Your task to perform on an android device: Find coffee shops on Maps Image 0: 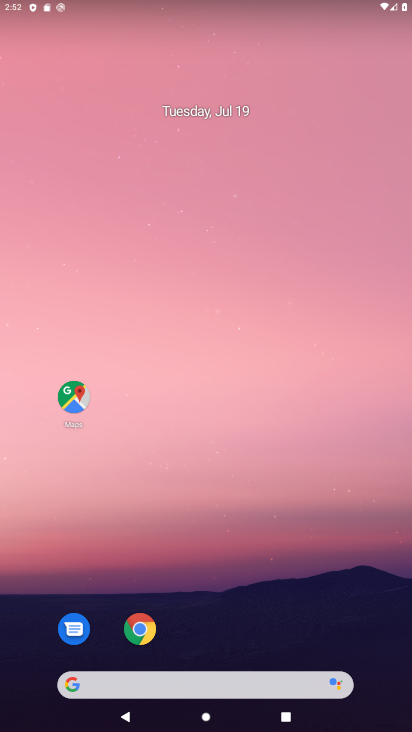
Step 0: click (80, 406)
Your task to perform on an android device: Find coffee shops on Maps Image 1: 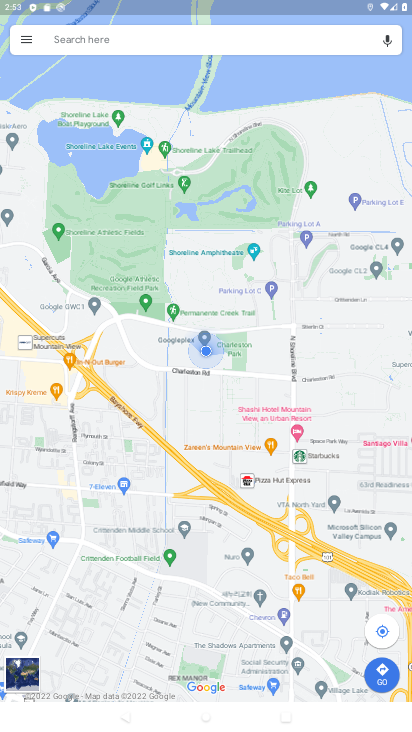
Step 1: click (122, 40)
Your task to perform on an android device: Find coffee shops on Maps Image 2: 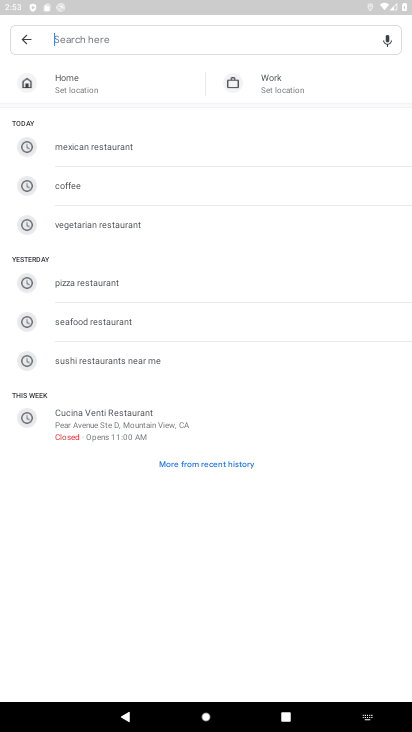
Step 2: type "coffee shops"
Your task to perform on an android device: Find coffee shops on Maps Image 3: 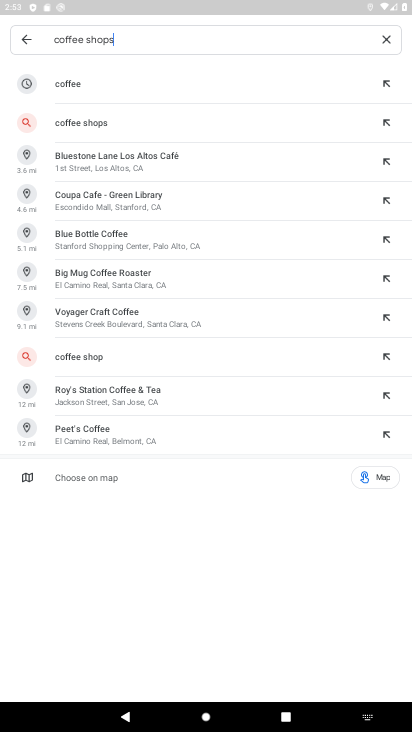
Step 3: click (101, 120)
Your task to perform on an android device: Find coffee shops on Maps Image 4: 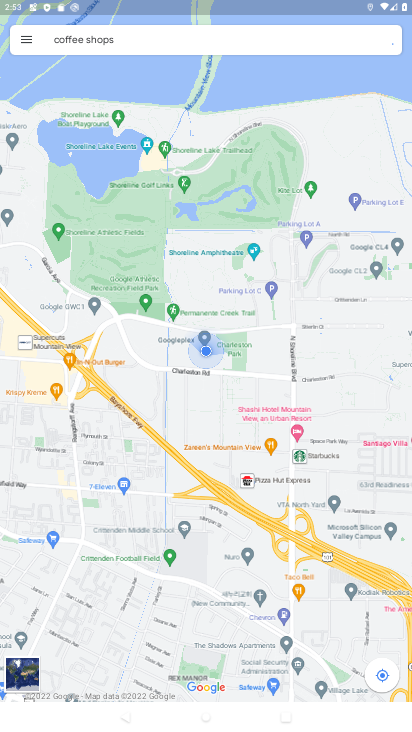
Step 4: task complete